Your task to perform on an android device: search for starred emails in the gmail app Image 0: 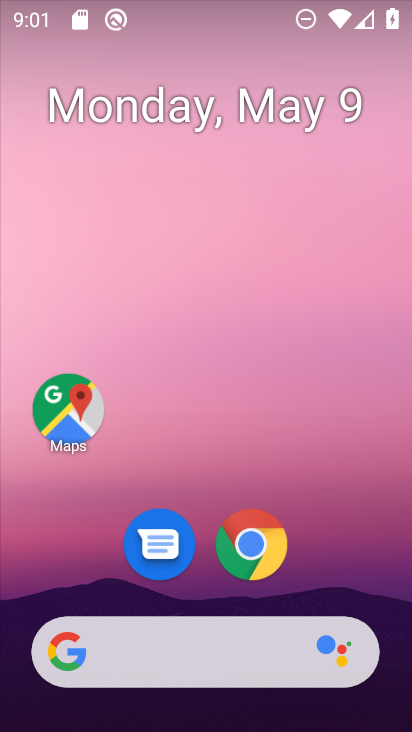
Step 0: drag from (329, 566) to (247, 98)
Your task to perform on an android device: search for starred emails in the gmail app Image 1: 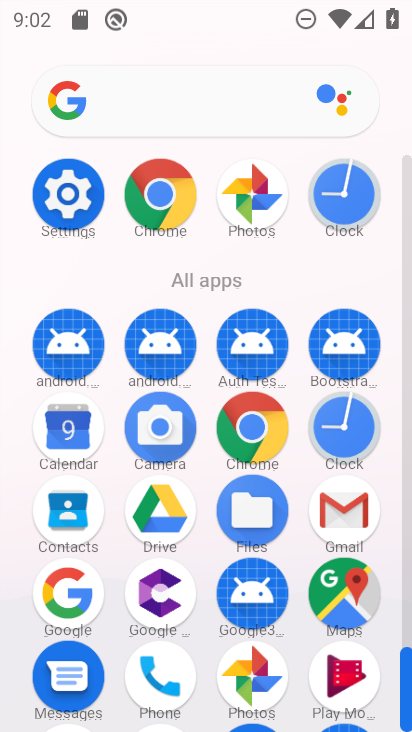
Step 1: click (347, 517)
Your task to perform on an android device: search for starred emails in the gmail app Image 2: 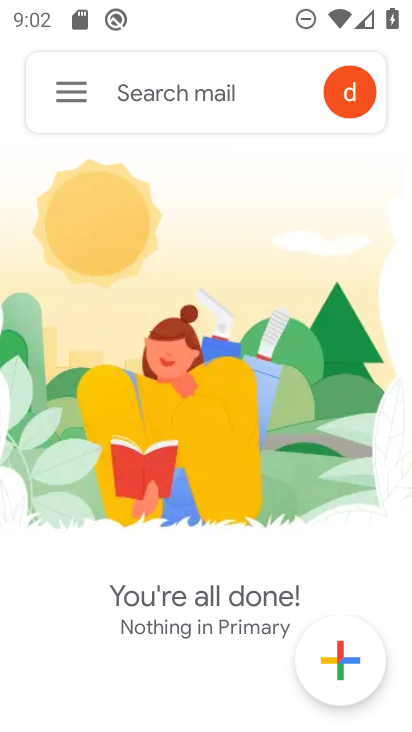
Step 2: click (71, 91)
Your task to perform on an android device: search for starred emails in the gmail app Image 3: 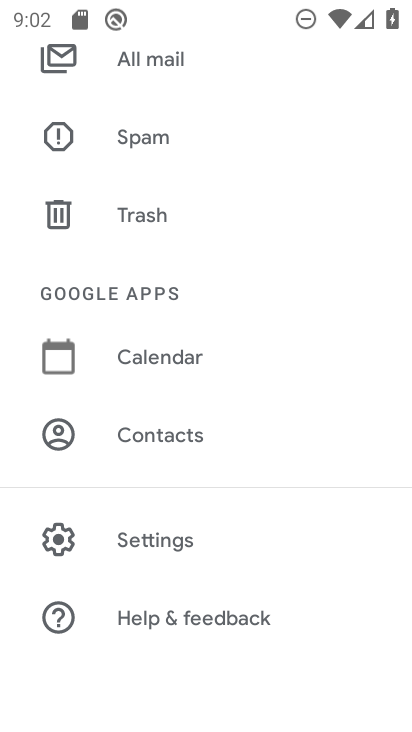
Step 3: drag from (263, 181) to (238, 716)
Your task to perform on an android device: search for starred emails in the gmail app Image 4: 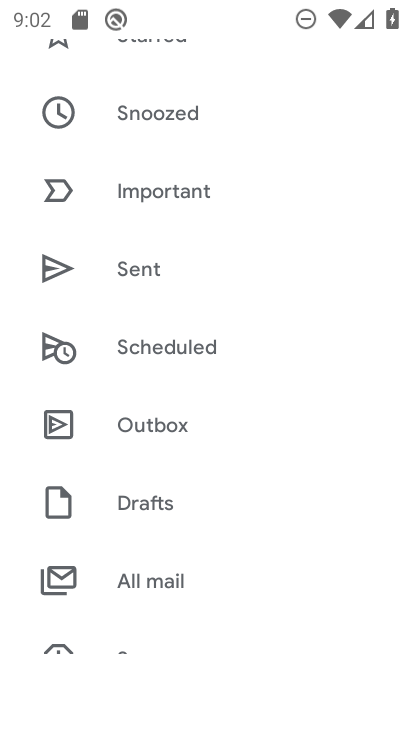
Step 4: drag from (229, 238) to (187, 675)
Your task to perform on an android device: search for starred emails in the gmail app Image 5: 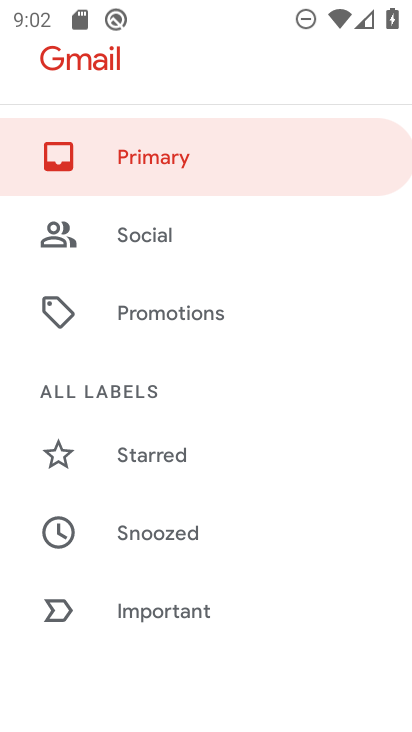
Step 5: click (152, 449)
Your task to perform on an android device: search for starred emails in the gmail app Image 6: 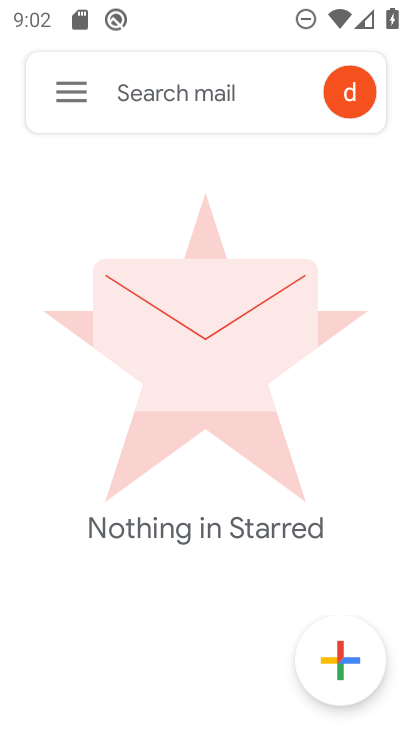
Step 6: task complete